Your task to perform on an android device: Clear all items from cart on amazon.com. Search for razer nari on amazon.com, select the first entry, add it to the cart, then select checkout. Image 0: 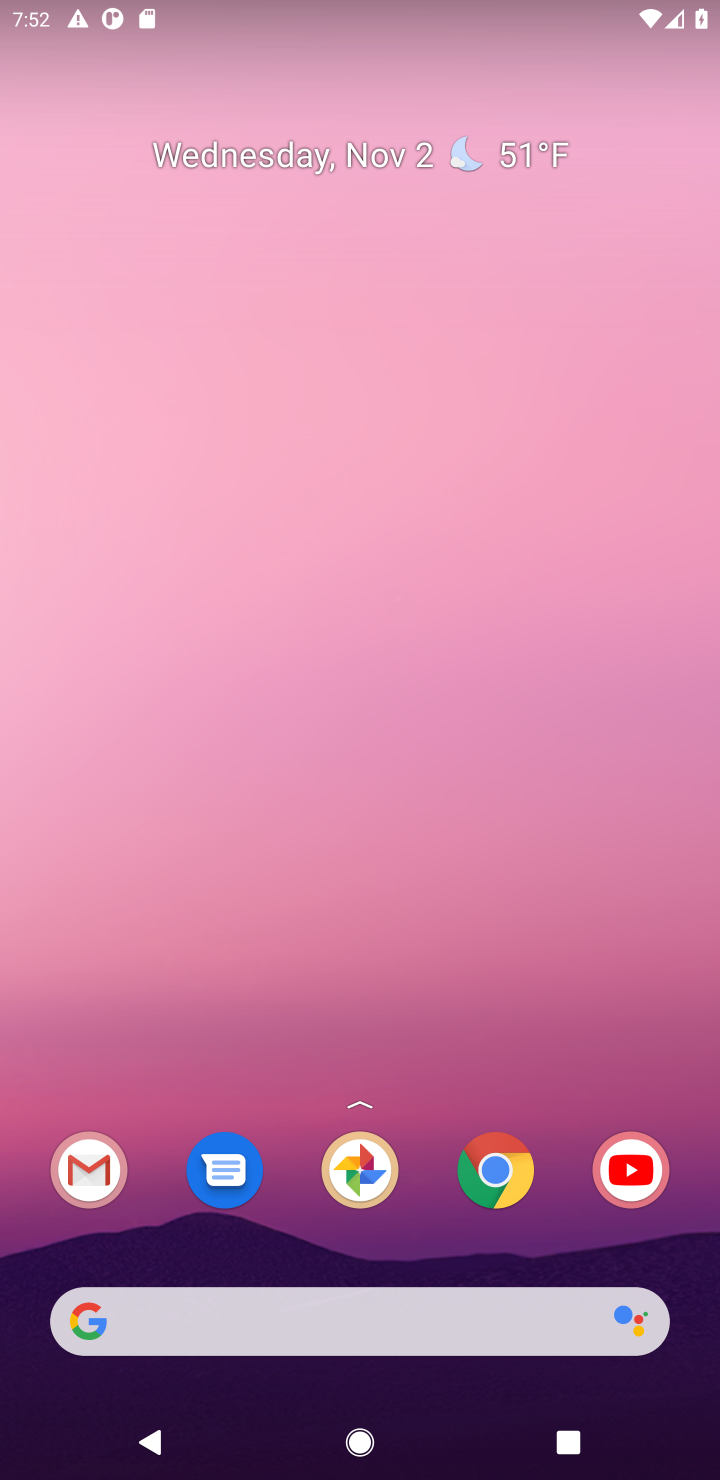
Step 0: click (508, 1162)
Your task to perform on an android device: Clear all items from cart on amazon.com. Search for razer nari on amazon.com, select the first entry, add it to the cart, then select checkout. Image 1: 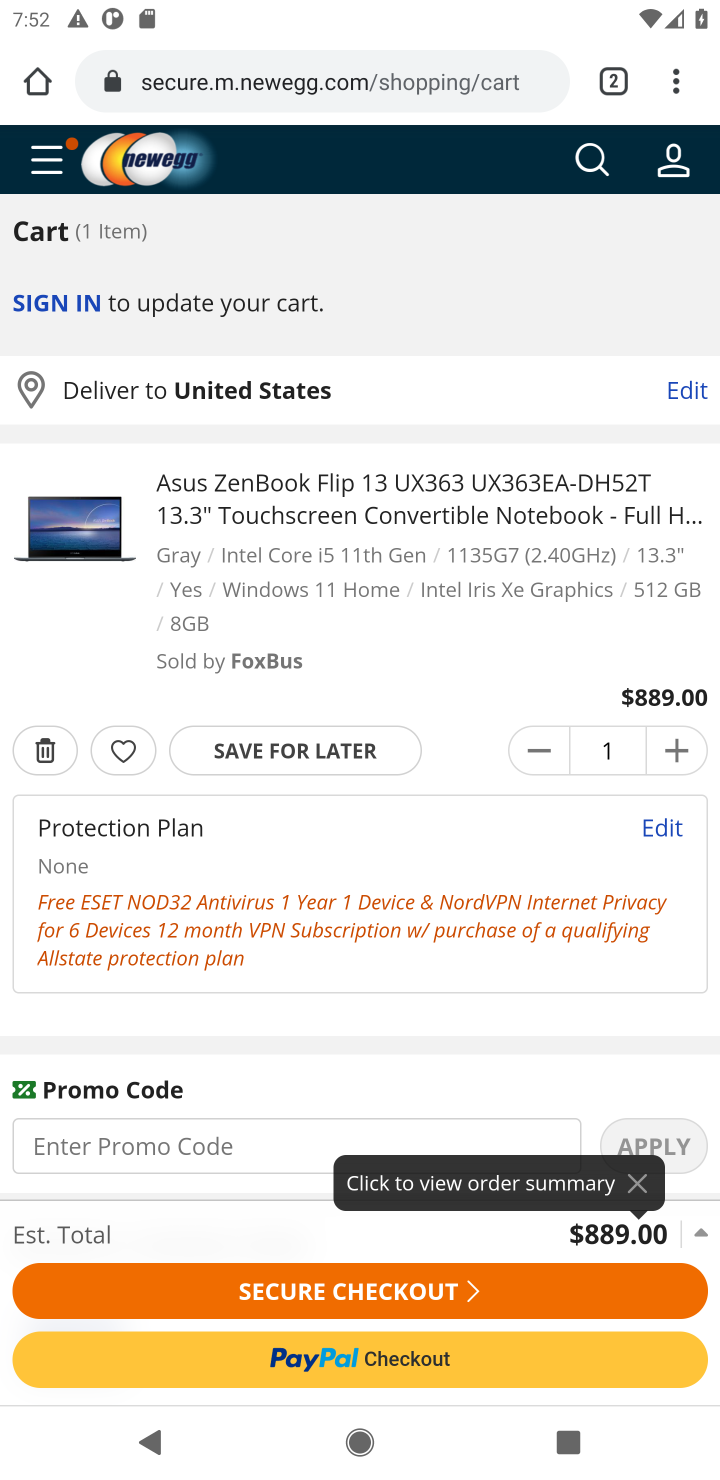
Step 1: click (272, 90)
Your task to perform on an android device: Clear all items from cart on amazon.com. Search for razer nari on amazon.com, select the first entry, add it to the cart, then select checkout. Image 2: 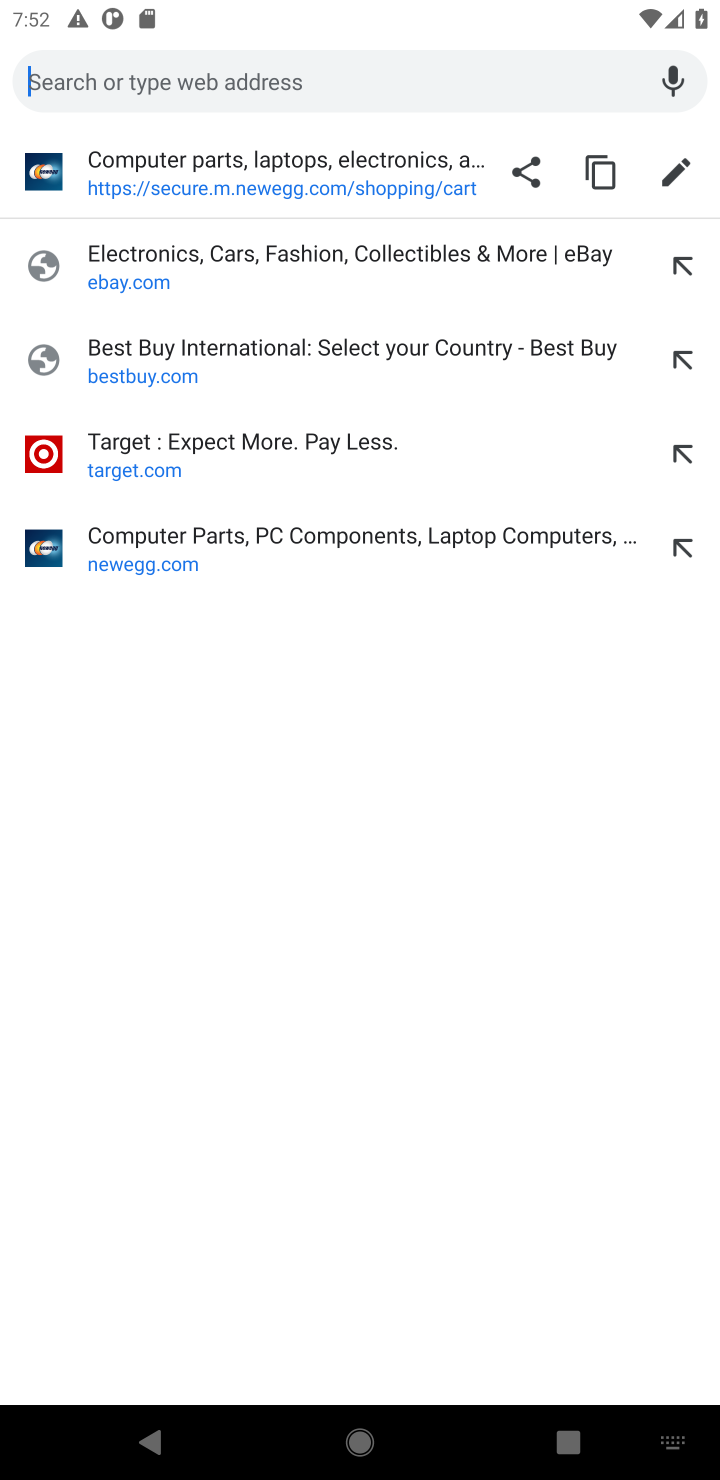
Step 2: type "amazon.com"
Your task to perform on an android device: Clear all items from cart on amazon.com. Search for razer nari on amazon.com, select the first entry, add it to the cart, then select checkout. Image 3: 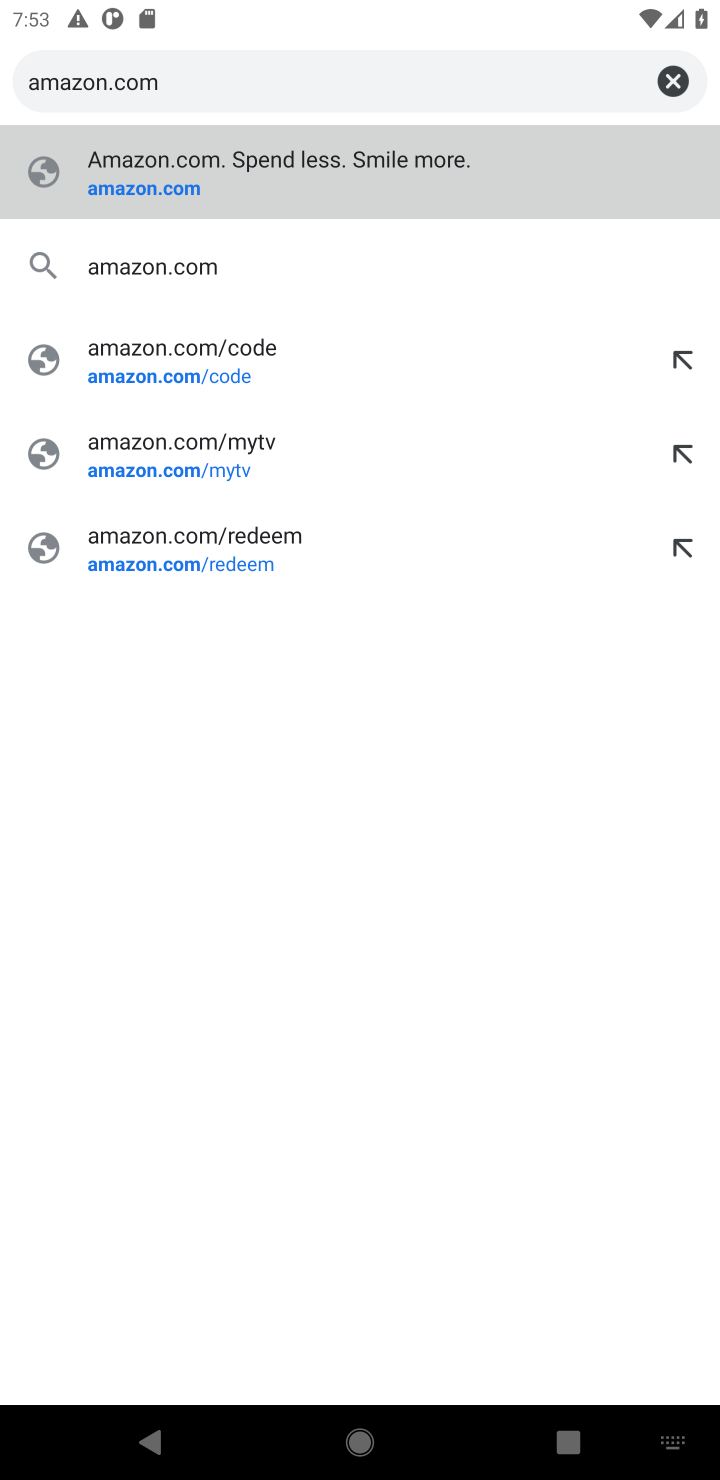
Step 3: press enter
Your task to perform on an android device: Clear all items from cart on amazon.com. Search for razer nari on amazon.com, select the first entry, add it to the cart, then select checkout. Image 4: 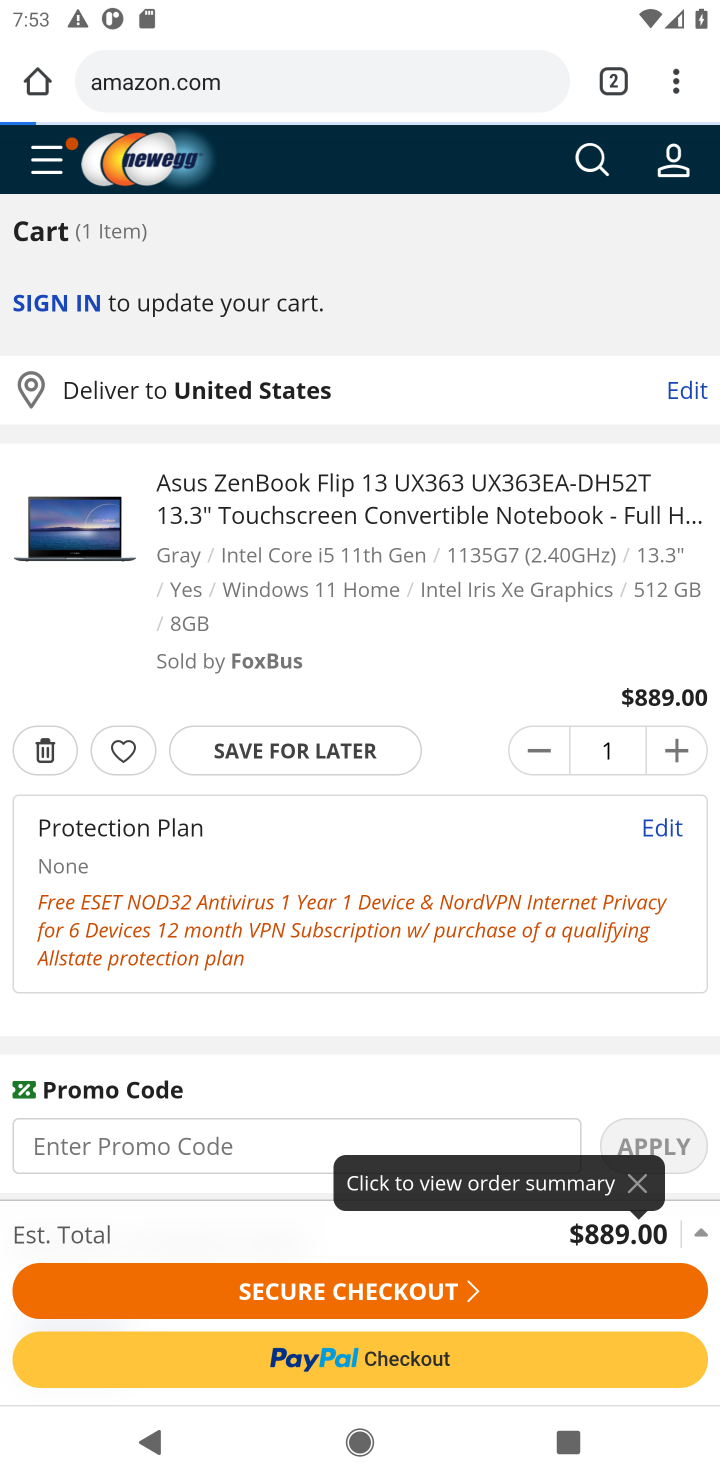
Step 4: press enter
Your task to perform on an android device: Clear all items from cart on amazon.com. Search for razer nari on amazon.com, select the first entry, add it to the cart, then select checkout. Image 5: 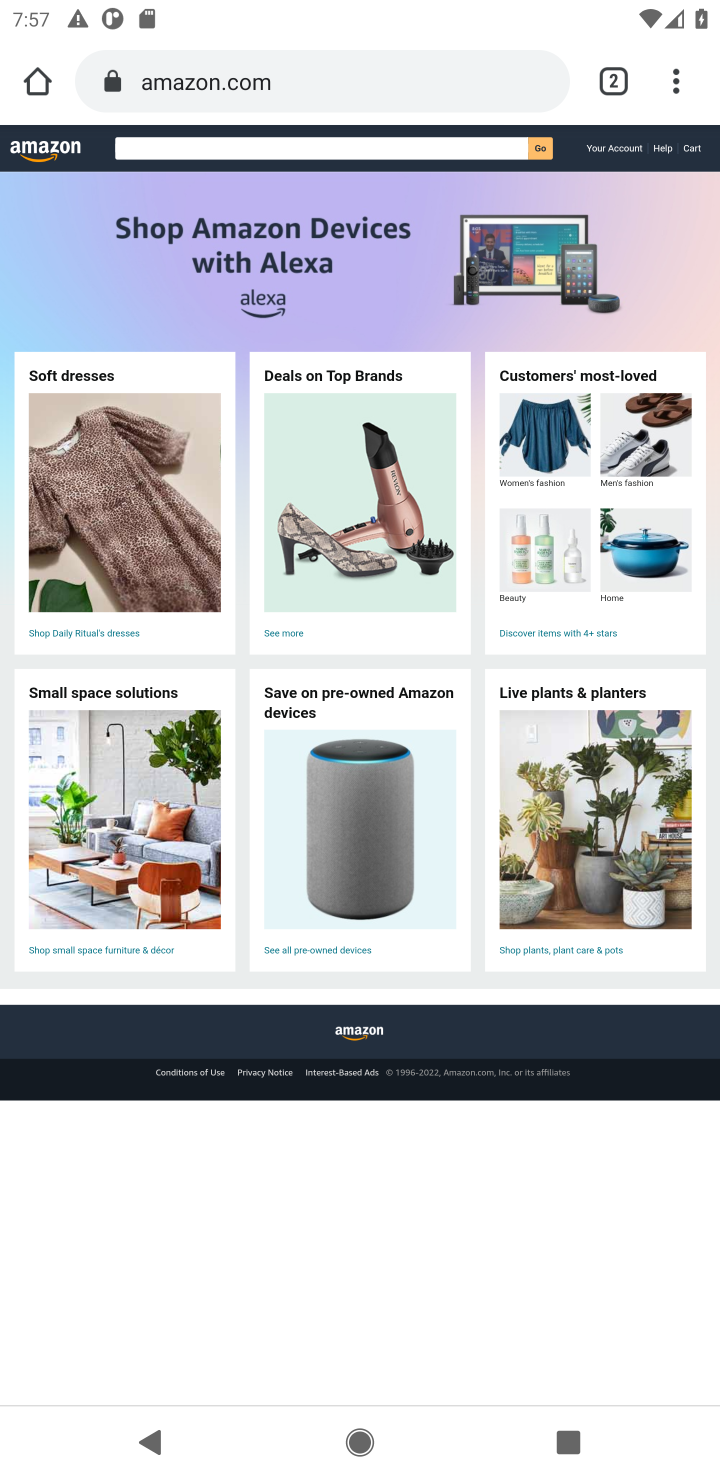
Step 5: click (189, 142)
Your task to perform on an android device: Clear all items from cart on amazon.com. Search for razer nari on amazon.com, select the first entry, add it to the cart, then select checkout. Image 6: 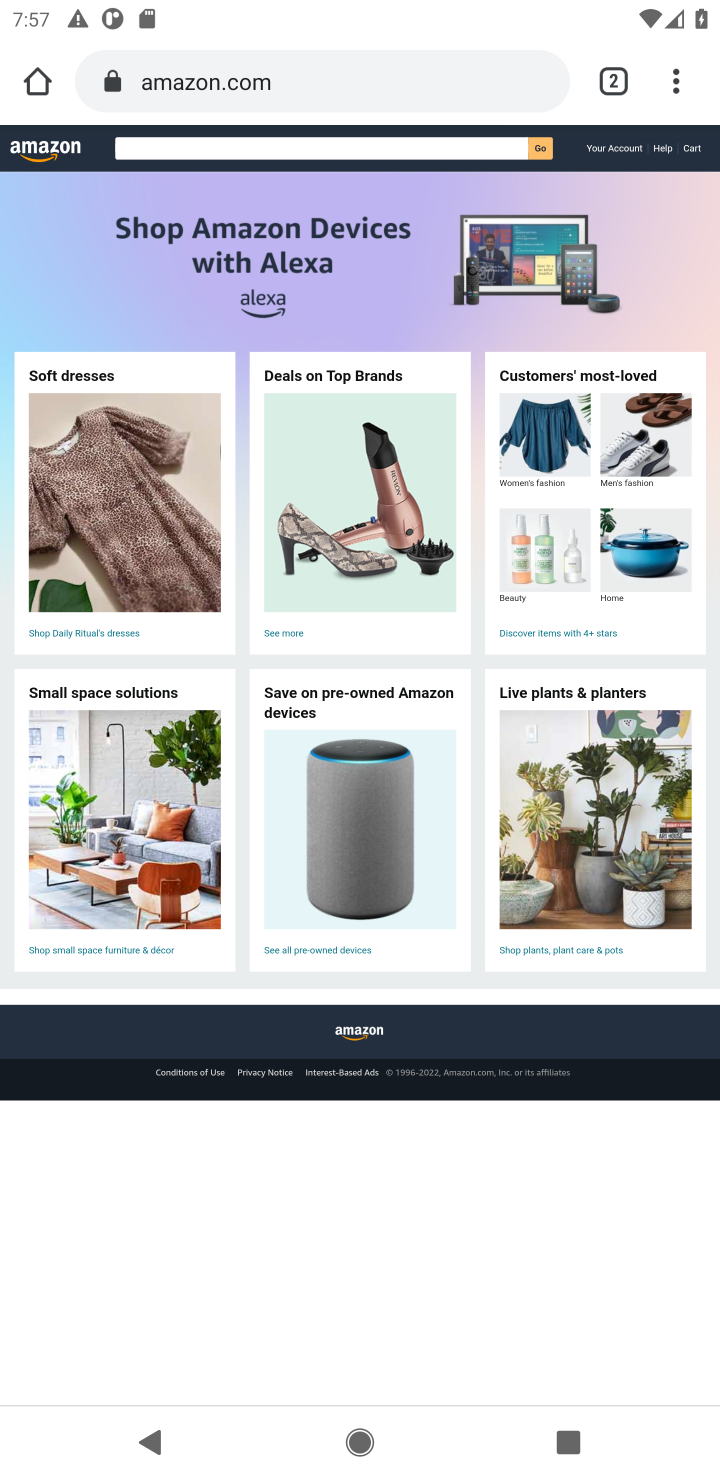
Step 6: task complete